Your task to perform on an android device: turn off notifications in google photos Image 0: 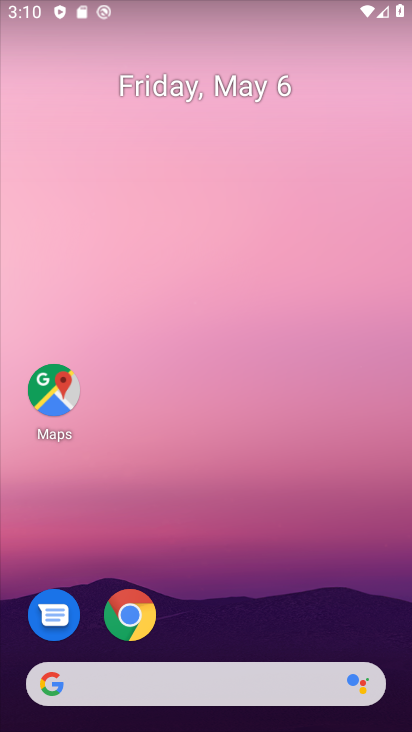
Step 0: drag from (304, 541) to (324, 112)
Your task to perform on an android device: turn off notifications in google photos Image 1: 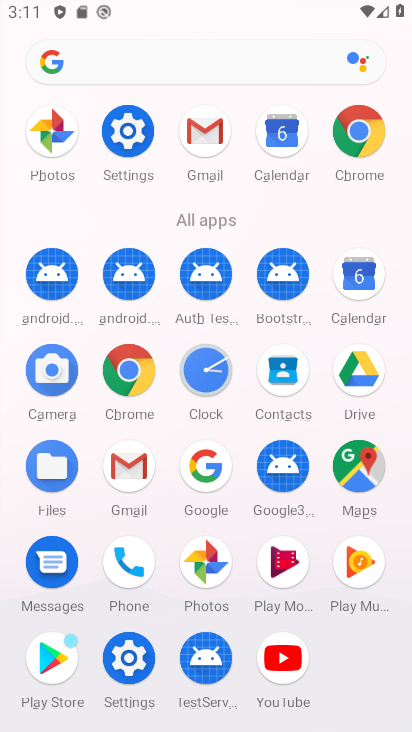
Step 1: click (205, 566)
Your task to perform on an android device: turn off notifications in google photos Image 2: 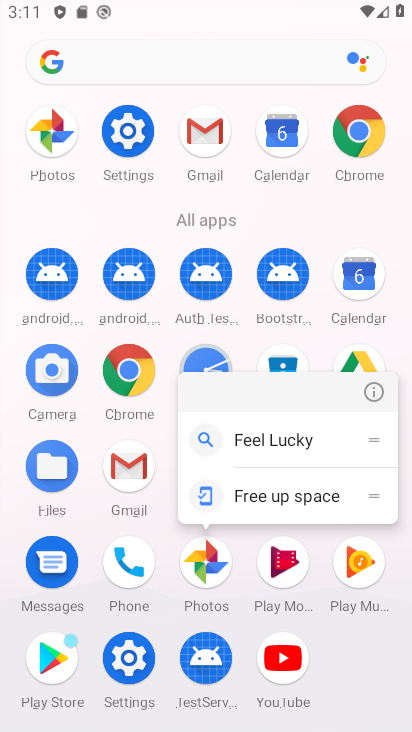
Step 2: click (373, 396)
Your task to perform on an android device: turn off notifications in google photos Image 3: 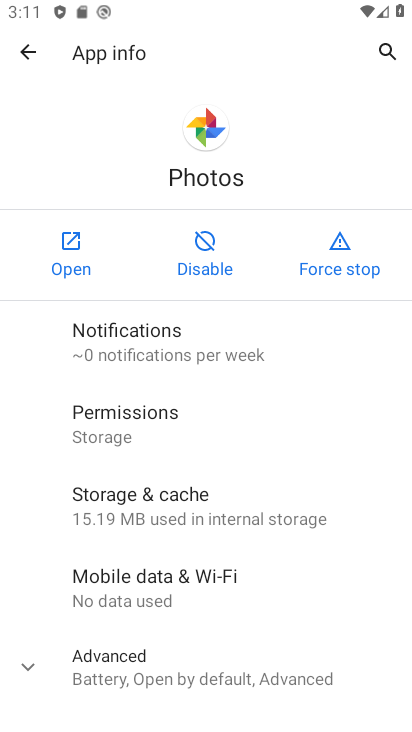
Step 3: click (160, 325)
Your task to perform on an android device: turn off notifications in google photos Image 4: 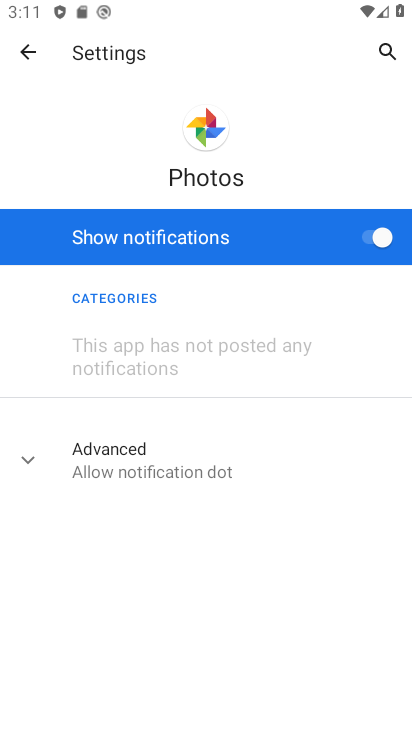
Step 4: click (366, 232)
Your task to perform on an android device: turn off notifications in google photos Image 5: 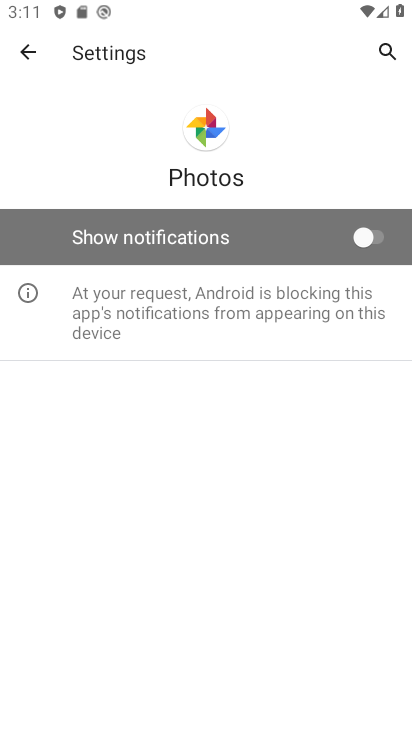
Step 5: task complete